Your task to perform on an android device: toggle pop-ups in chrome Image 0: 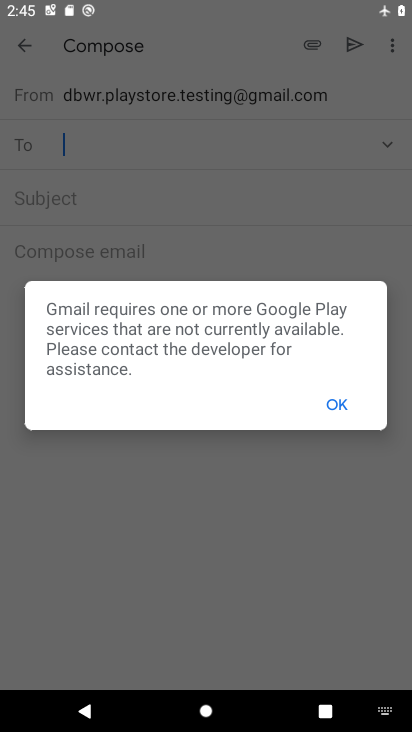
Step 0: click (363, 529)
Your task to perform on an android device: toggle pop-ups in chrome Image 1: 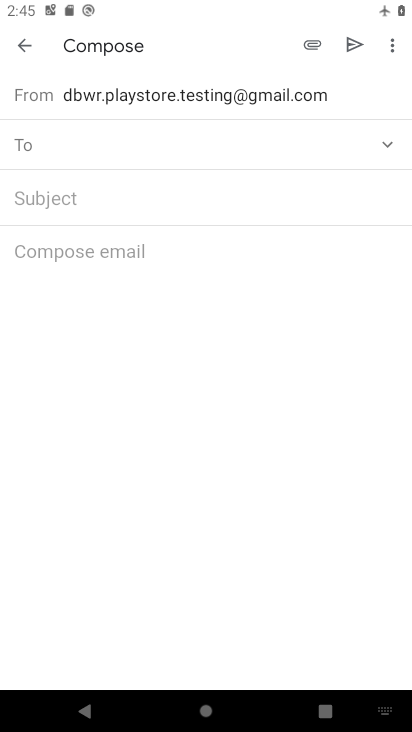
Step 1: press home button
Your task to perform on an android device: toggle pop-ups in chrome Image 2: 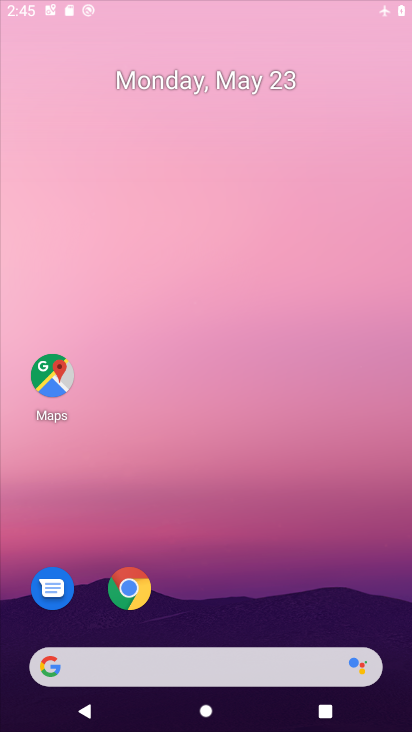
Step 2: drag from (206, 597) to (263, 110)
Your task to perform on an android device: toggle pop-ups in chrome Image 3: 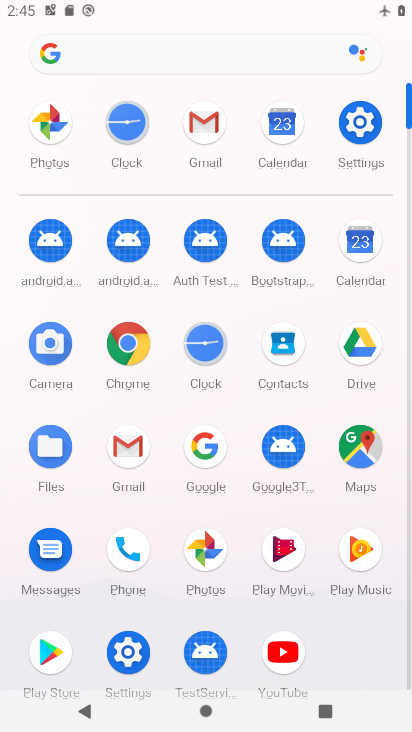
Step 3: click (117, 348)
Your task to perform on an android device: toggle pop-ups in chrome Image 4: 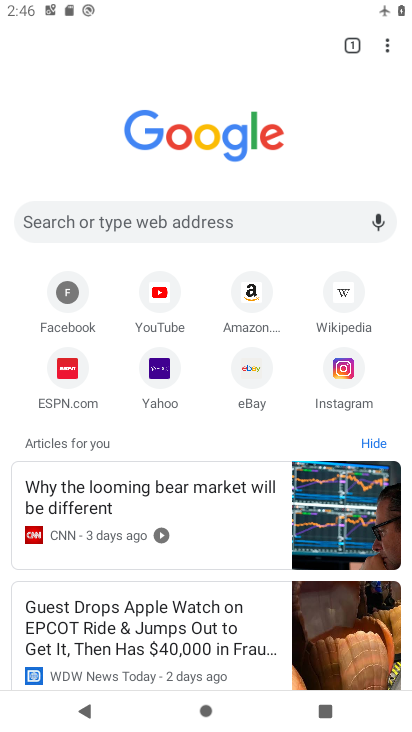
Step 4: drag from (172, 610) to (391, 294)
Your task to perform on an android device: toggle pop-ups in chrome Image 5: 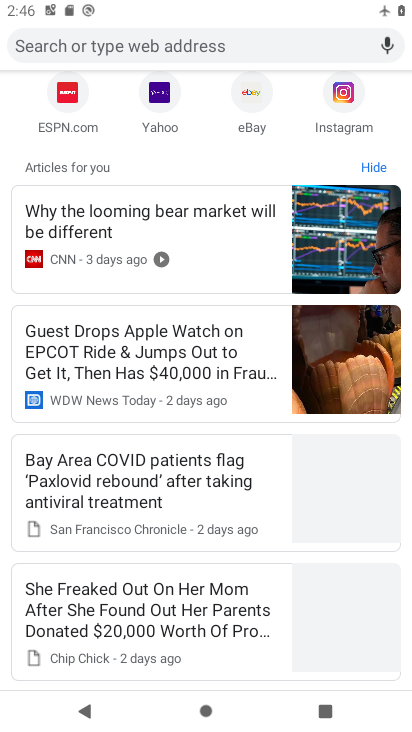
Step 5: drag from (182, 658) to (276, 189)
Your task to perform on an android device: toggle pop-ups in chrome Image 6: 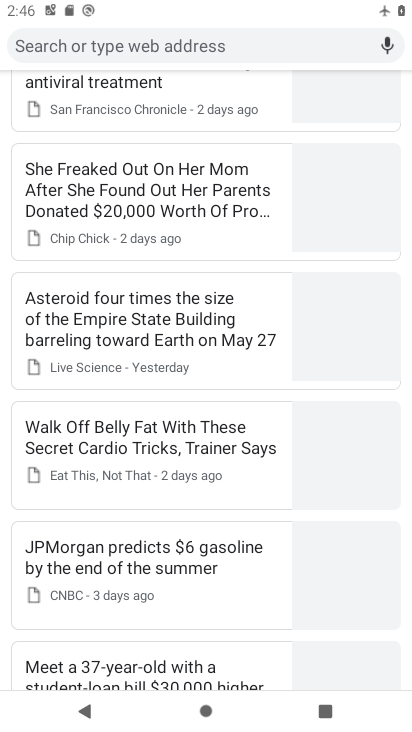
Step 6: drag from (255, 118) to (245, 556)
Your task to perform on an android device: toggle pop-ups in chrome Image 7: 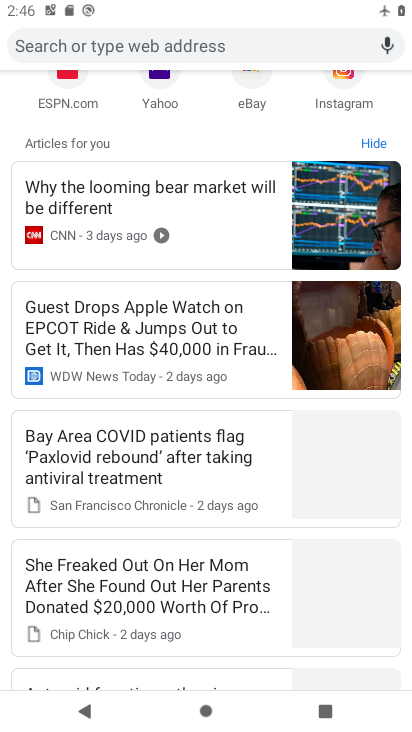
Step 7: drag from (205, 92) to (246, 723)
Your task to perform on an android device: toggle pop-ups in chrome Image 8: 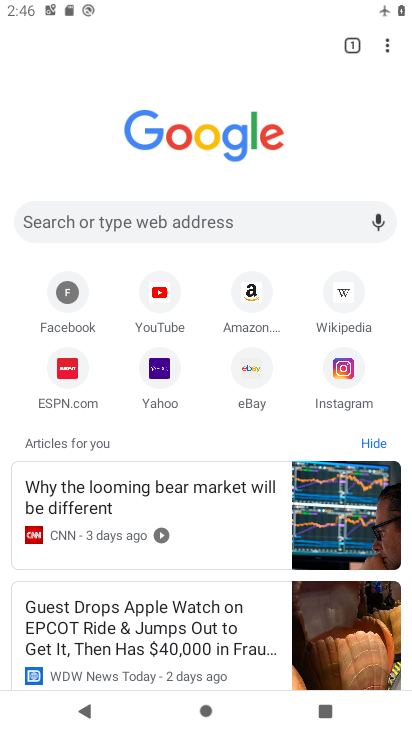
Step 8: click (387, 48)
Your task to perform on an android device: toggle pop-ups in chrome Image 9: 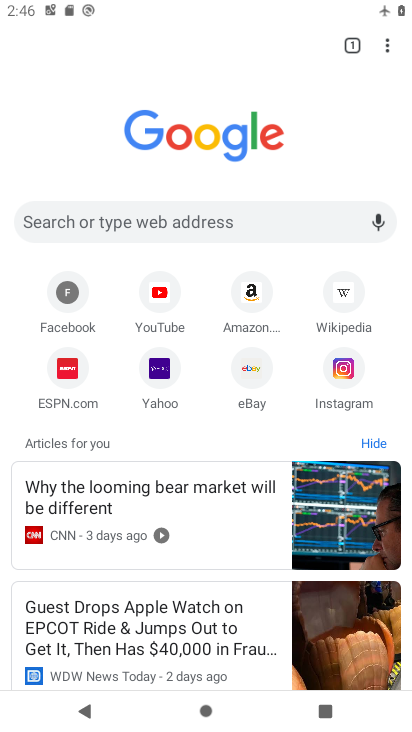
Step 9: click (389, 46)
Your task to perform on an android device: toggle pop-ups in chrome Image 10: 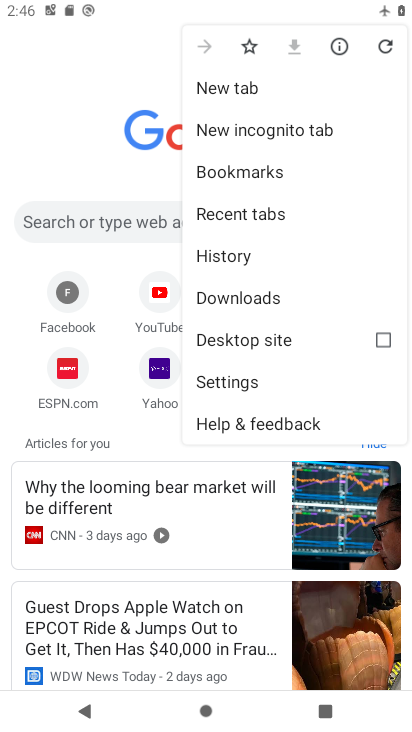
Step 10: click (216, 386)
Your task to perform on an android device: toggle pop-ups in chrome Image 11: 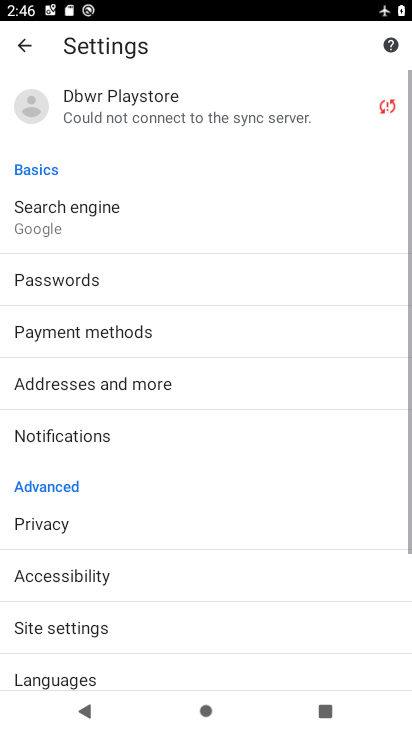
Step 11: drag from (189, 585) to (303, 98)
Your task to perform on an android device: toggle pop-ups in chrome Image 12: 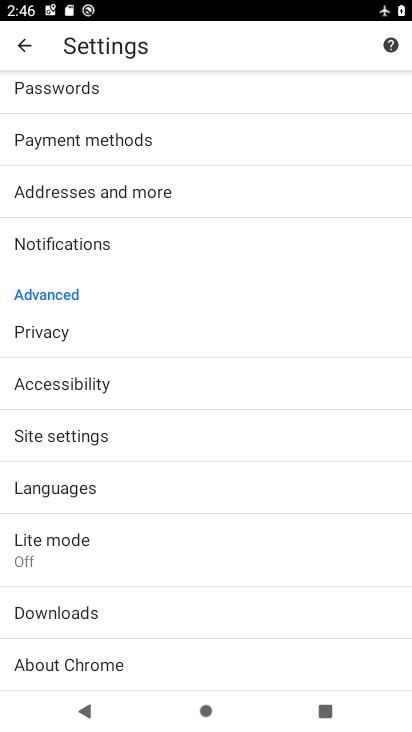
Step 12: click (108, 435)
Your task to perform on an android device: toggle pop-ups in chrome Image 13: 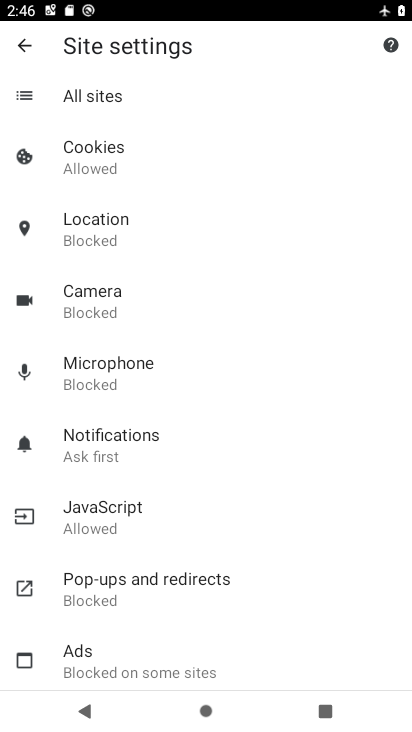
Step 13: click (100, 571)
Your task to perform on an android device: toggle pop-ups in chrome Image 14: 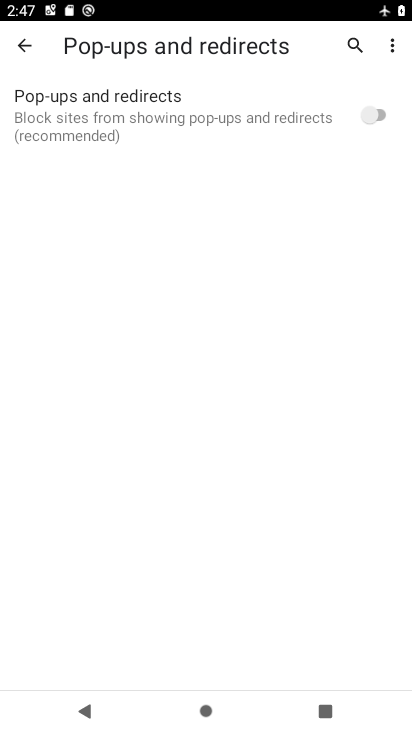
Step 14: click (274, 145)
Your task to perform on an android device: toggle pop-ups in chrome Image 15: 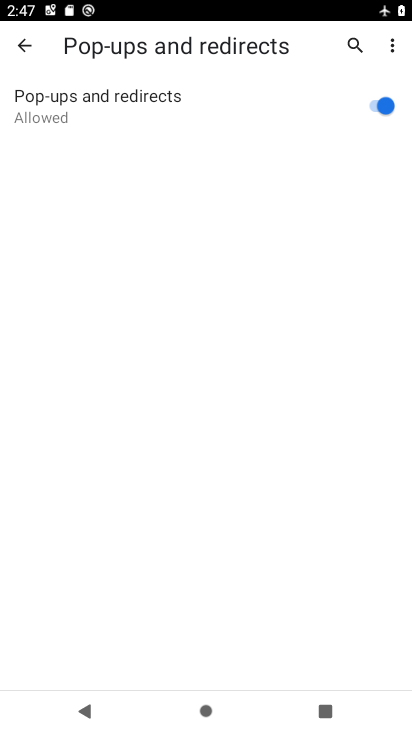
Step 15: task complete